Your task to perform on an android device: check the backup settings in the google photos Image 0: 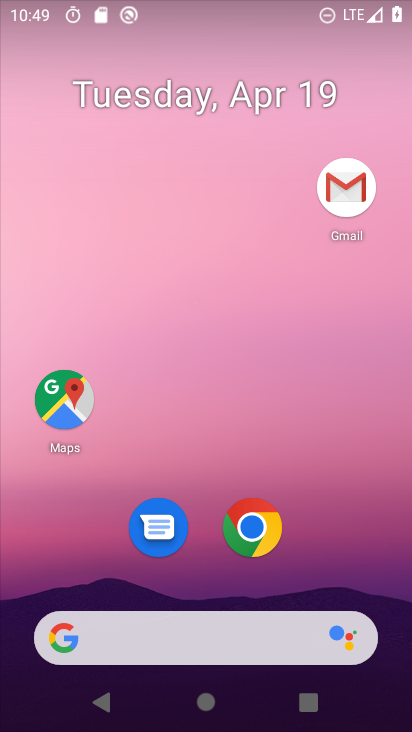
Step 0: drag from (361, 488) to (382, 88)
Your task to perform on an android device: check the backup settings in the google photos Image 1: 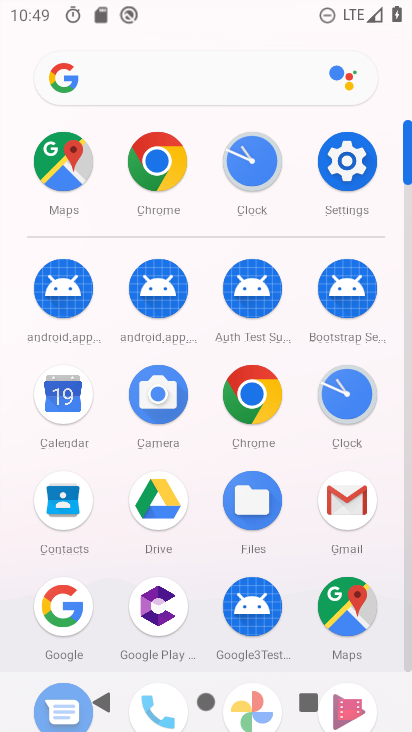
Step 1: drag from (298, 559) to (342, 305)
Your task to perform on an android device: check the backup settings in the google photos Image 2: 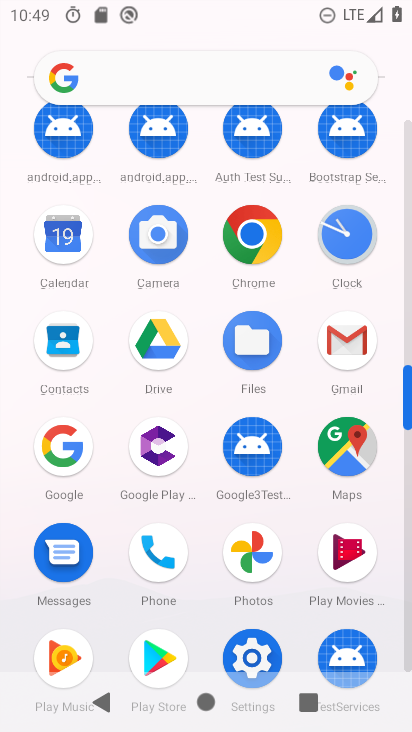
Step 2: click (238, 553)
Your task to perform on an android device: check the backup settings in the google photos Image 3: 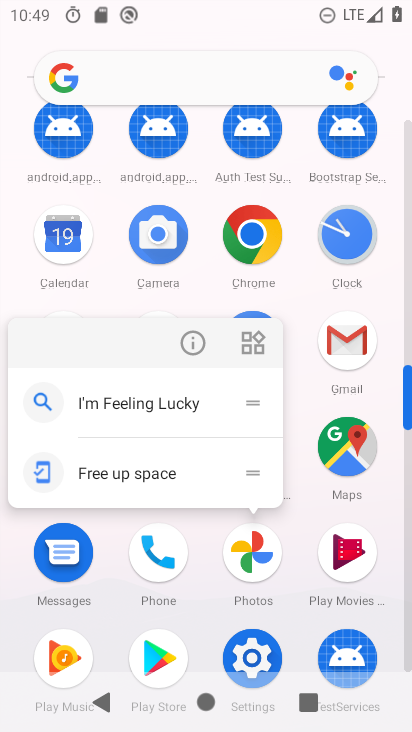
Step 3: click (244, 557)
Your task to perform on an android device: check the backup settings in the google photos Image 4: 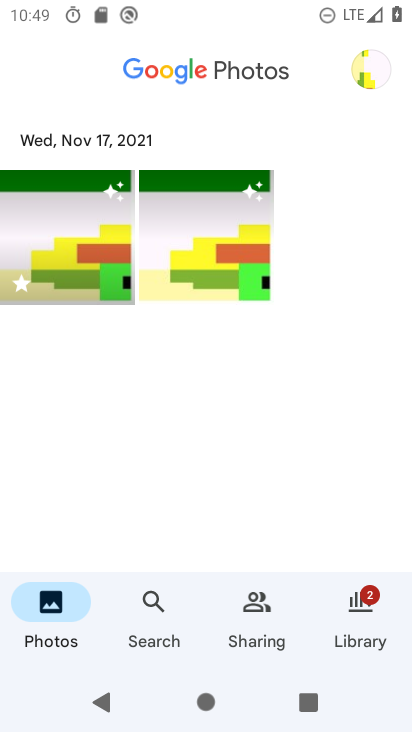
Step 4: click (365, 62)
Your task to perform on an android device: check the backup settings in the google photos Image 5: 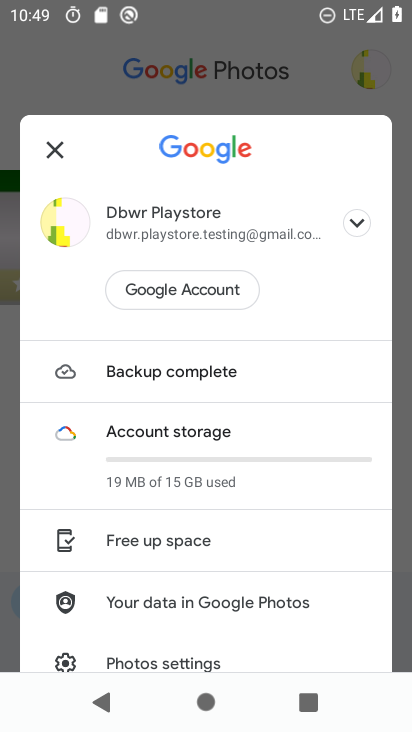
Step 5: drag from (297, 638) to (329, 341)
Your task to perform on an android device: check the backup settings in the google photos Image 6: 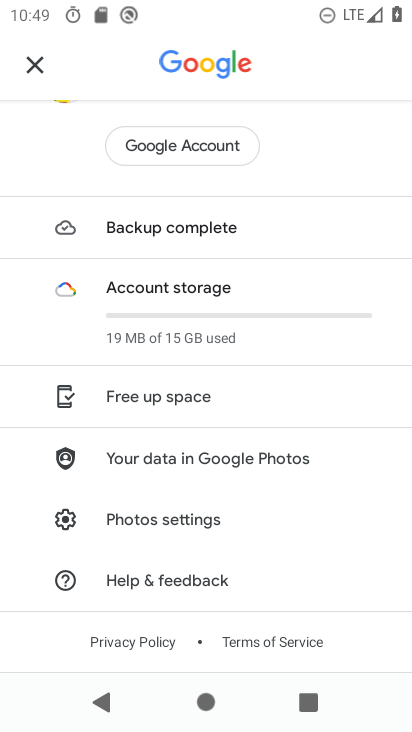
Step 6: click (166, 227)
Your task to perform on an android device: check the backup settings in the google photos Image 7: 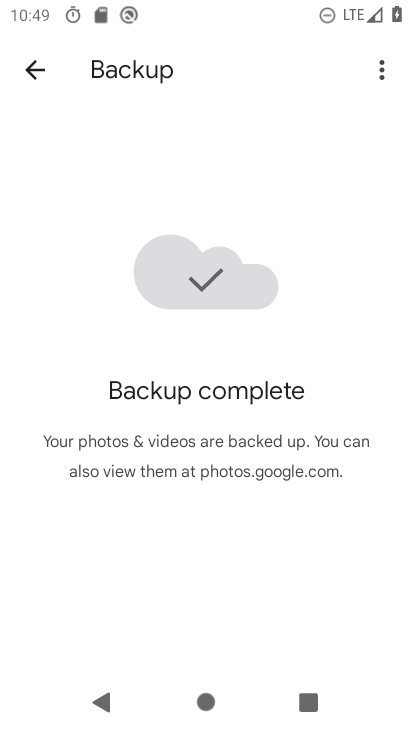
Step 7: click (388, 63)
Your task to perform on an android device: check the backup settings in the google photos Image 8: 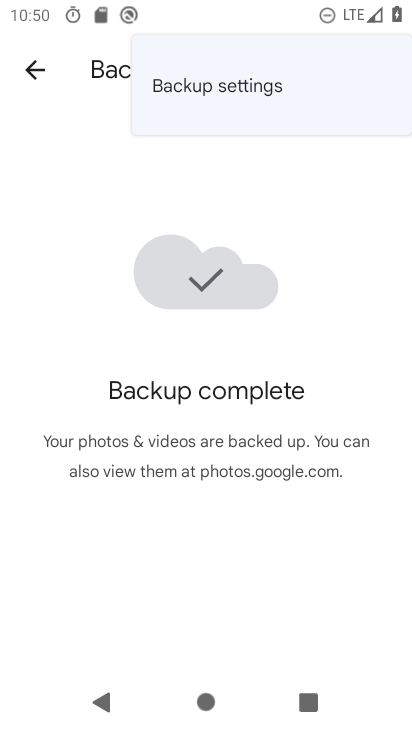
Step 8: click (261, 79)
Your task to perform on an android device: check the backup settings in the google photos Image 9: 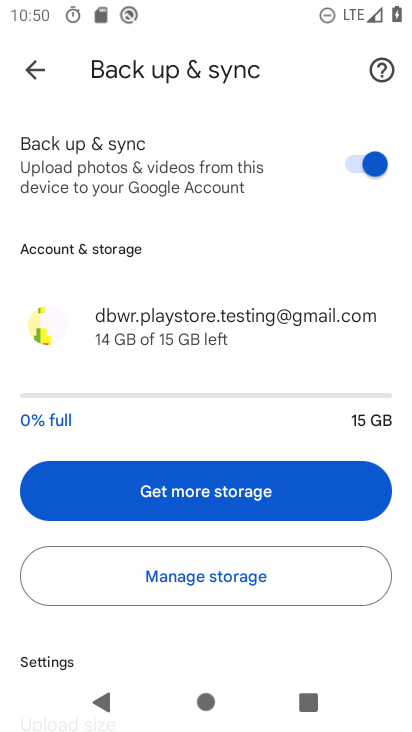
Step 9: task complete